Your task to perform on an android device: Do I have any events today? Image 0: 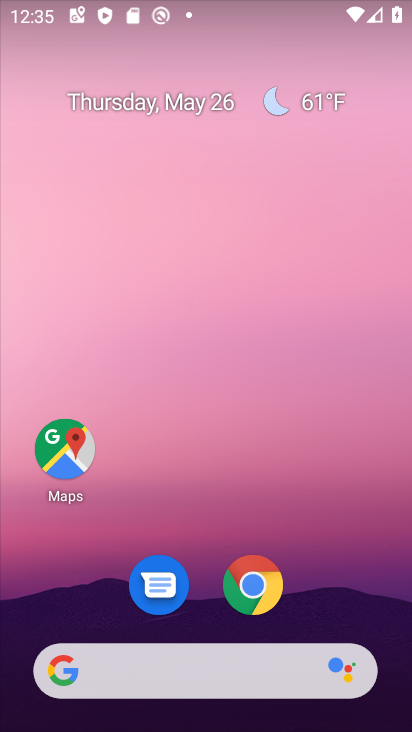
Step 0: drag from (209, 513) to (204, 44)
Your task to perform on an android device: Do I have any events today? Image 1: 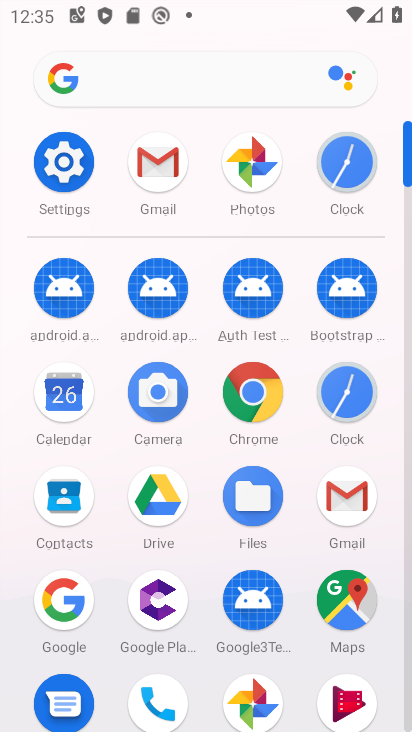
Step 1: click (70, 389)
Your task to perform on an android device: Do I have any events today? Image 2: 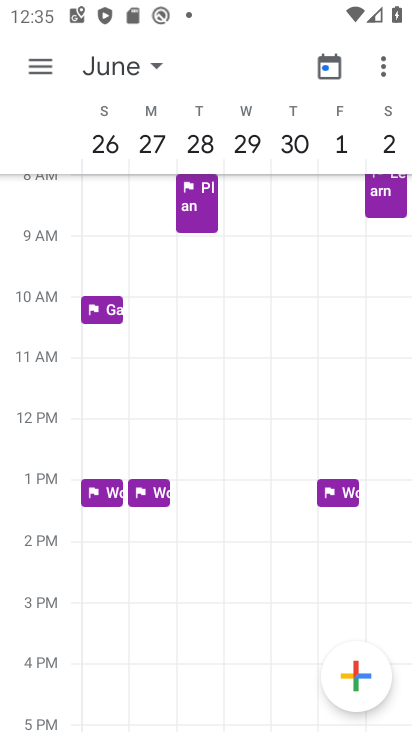
Step 2: drag from (120, 430) to (401, 460)
Your task to perform on an android device: Do I have any events today? Image 3: 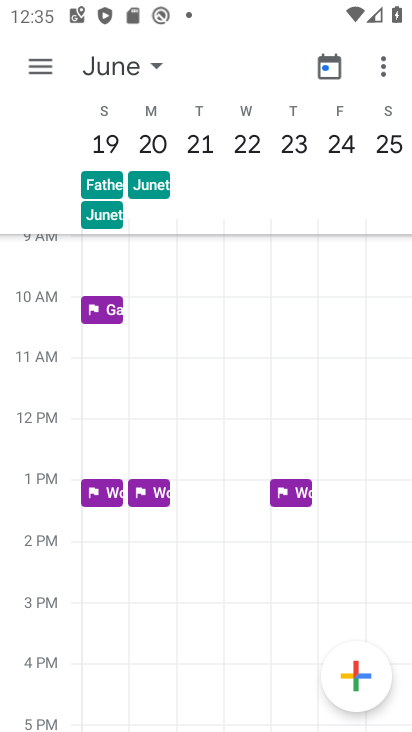
Step 3: drag from (106, 411) to (401, 408)
Your task to perform on an android device: Do I have any events today? Image 4: 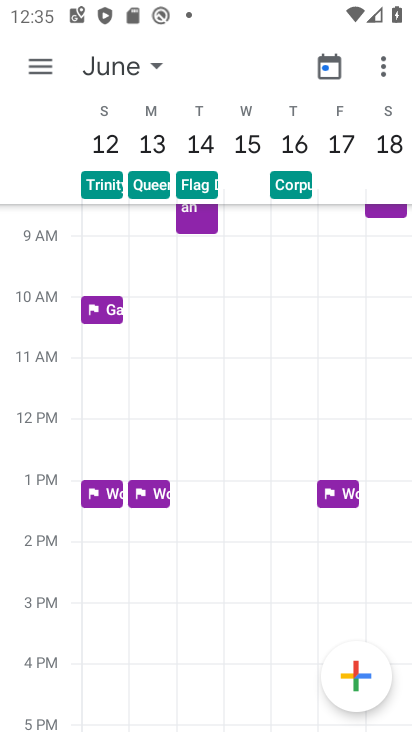
Step 4: drag from (104, 367) to (410, 384)
Your task to perform on an android device: Do I have any events today? Image 5: 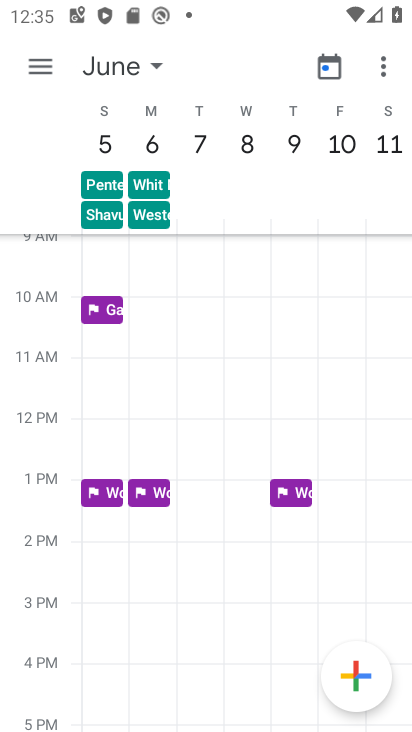
Step 5: drag from (108, 393) to (411, 380)
Your task to perform on an android device: Do I have any events today? Image 6: 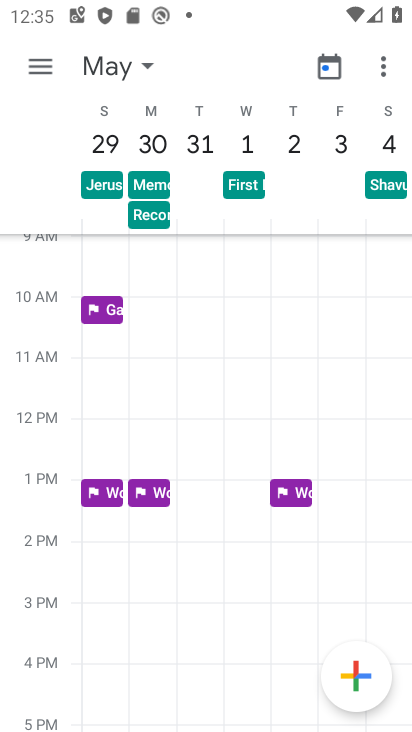
Step 6: drag from (108, 371) to (411, 382)
Your task to perform on an android device: Do I have any events today? Image 7: 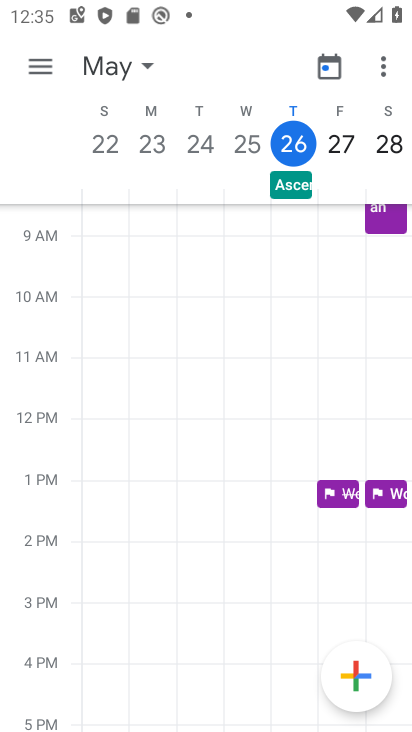
Step 7: click (298, 123)
Your task to perform on an android device: Do I have any events today? Image 8: 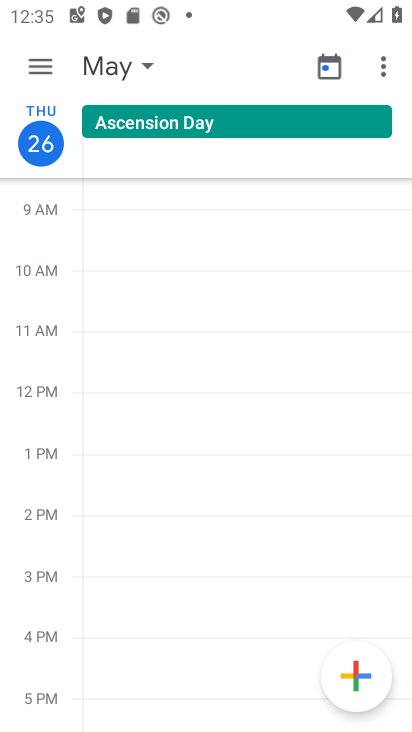
Step 8: click (43, 150)
Your task to perform on an android device: Do I have any events today? Image 9: 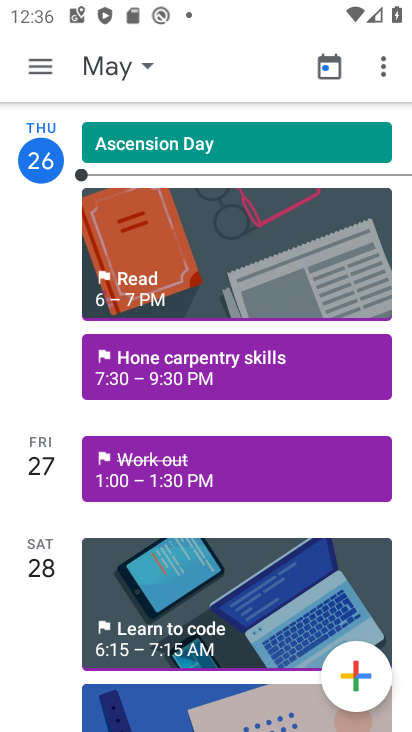
Step 9: task complete